Your task to perform on an android device: When is my next meeting? Image 0: 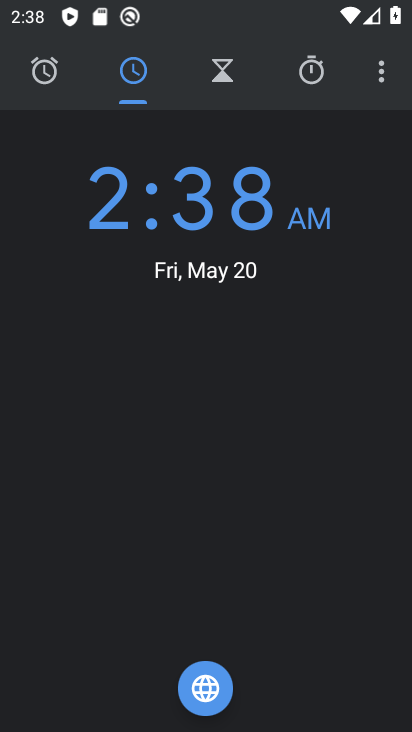
Step 0: press home button
Your task to perform on an android device: When is my next meeting? Image 1: 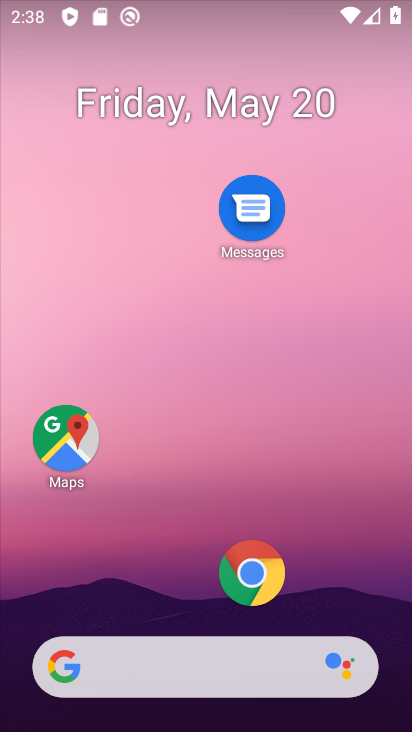
Step 1: click (240, 110)
Your task to perform on an android device: When is my next meeting? Image 2: 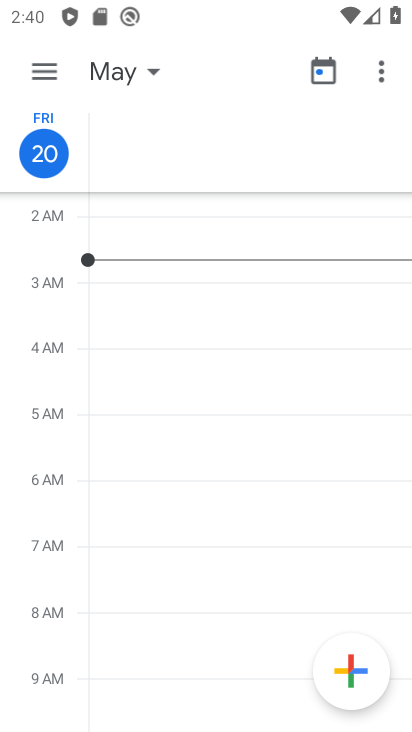
Step 2: task complete